Your task to perform on an android device: Go to wifi settings Image 0: 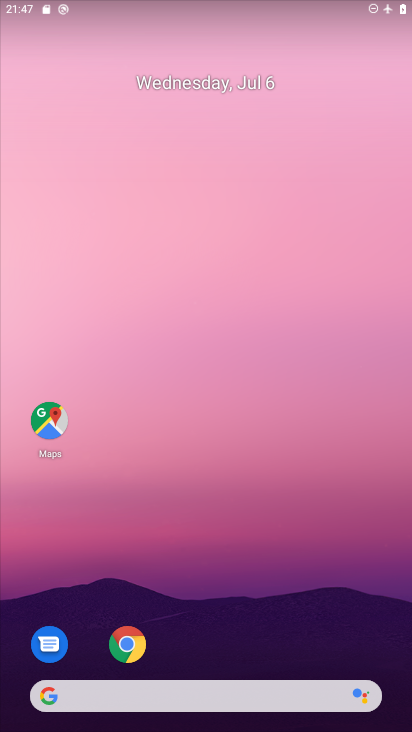
Step 0: drag from (234, 469) to (210, 220)
Your task to perform on an android device: Go to wifi settings Image 1: 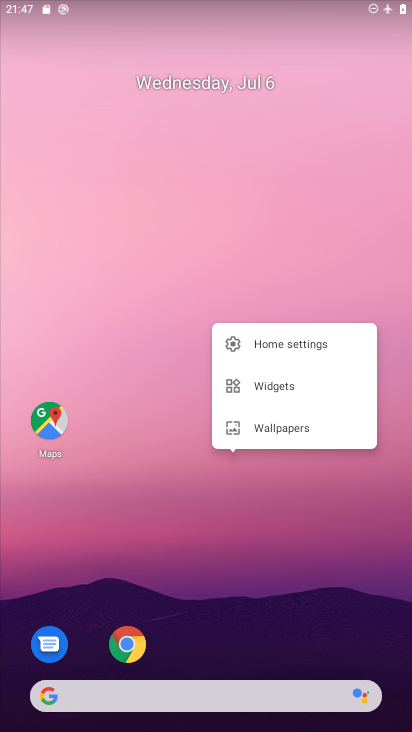
Step 1: click (177, 596)
Your task to perform on an android device: Go to wifi settings Image 2: 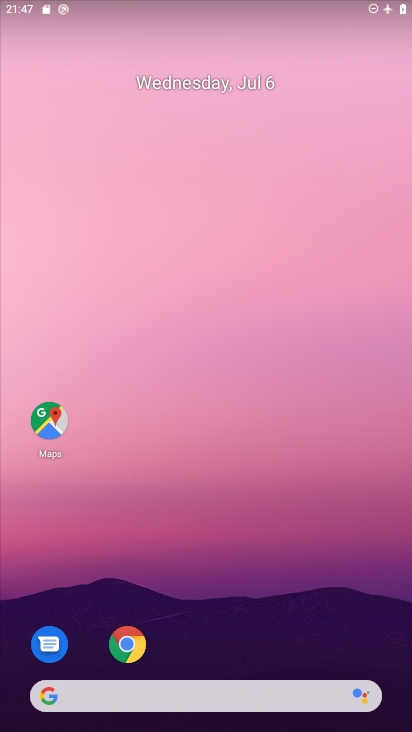
Step 2: drag from (230, 627) to (151, 168)
Your task to perform on an android device: Go to wifi settings Image 3: 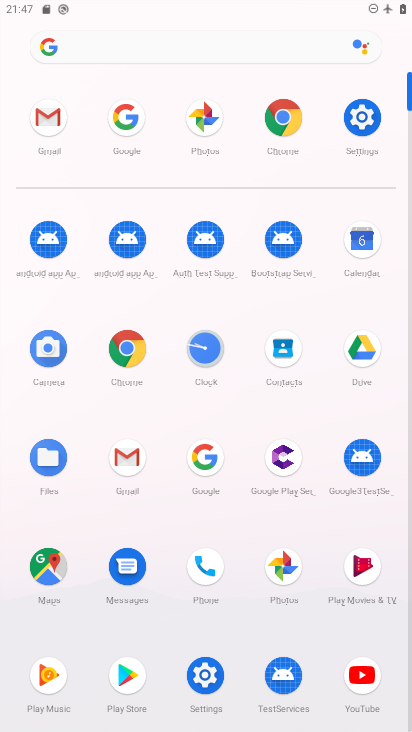
Step 3: click (350, 122)
Your task to perform on an android device: Go to wifi settings Image 4: 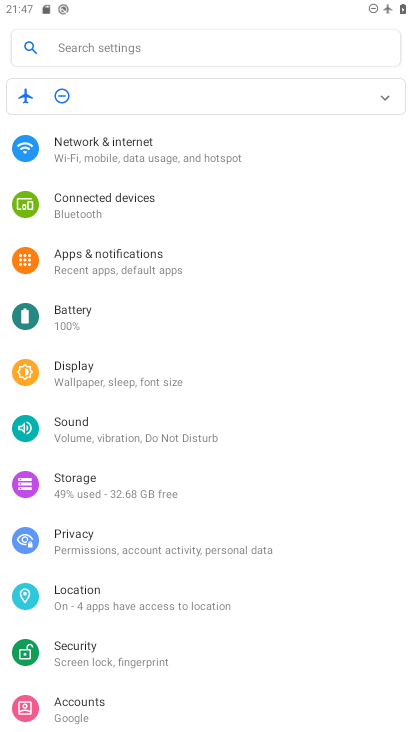
Step 4: click (214, 151)
Your task to perform on an android device: Go to wifi settings Image 5: 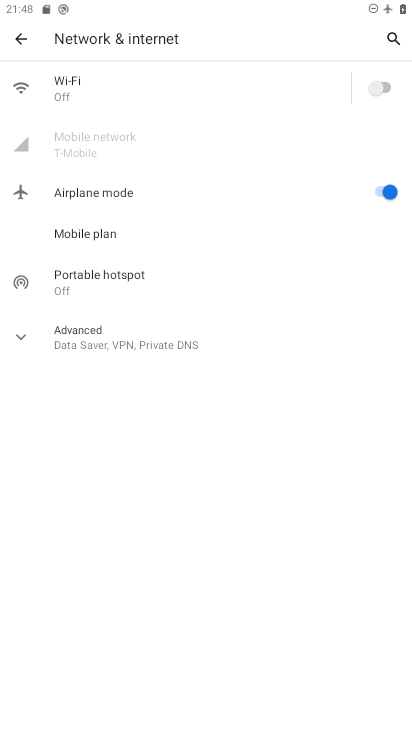
Step 5: click (141, 88)
Your task to perform on an android device: Go to wifi settings Image 6: 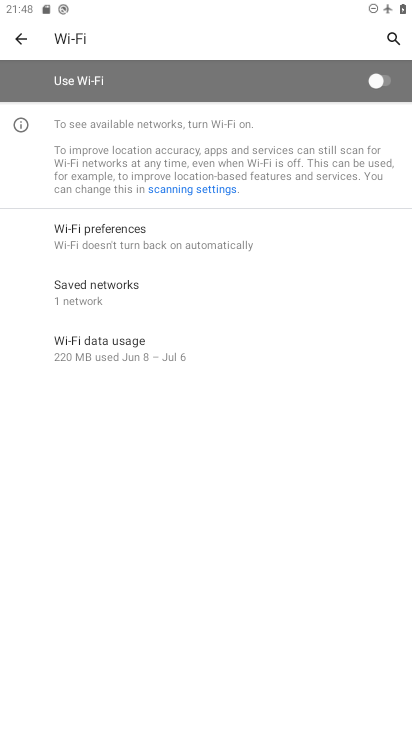
Step 6: task complete